Your task to perform on an android device: open the mobile data screen to see how much data has been used Image 0: 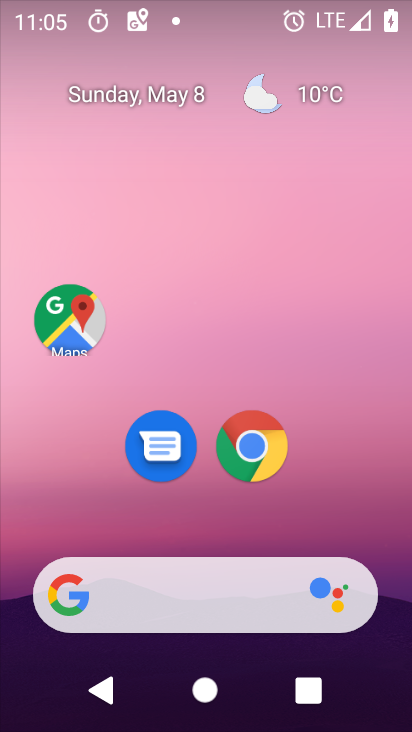
Step 0: drag from (381, 510) to (405, 10)
Your task to perform on an android device: open the mobile data screen to see how much data has been used Image 1: 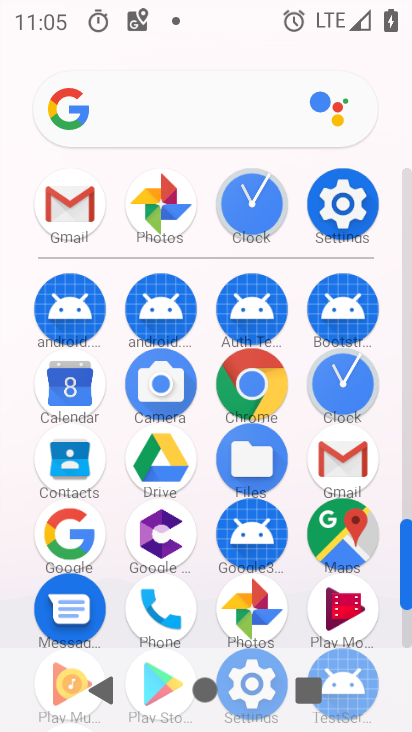
Step 1: click (355, 212)
Your task to perform on an android device: open the mobile data screen to see how much data has been used Image 2: 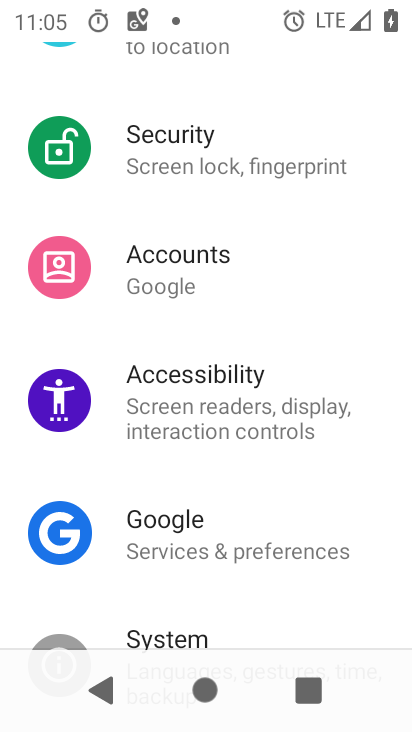
Step 2: drag from (333, 241) to (340, 527)
Your task to perform on an android device: open the mobile data screen to see how much data has been used Image 3: 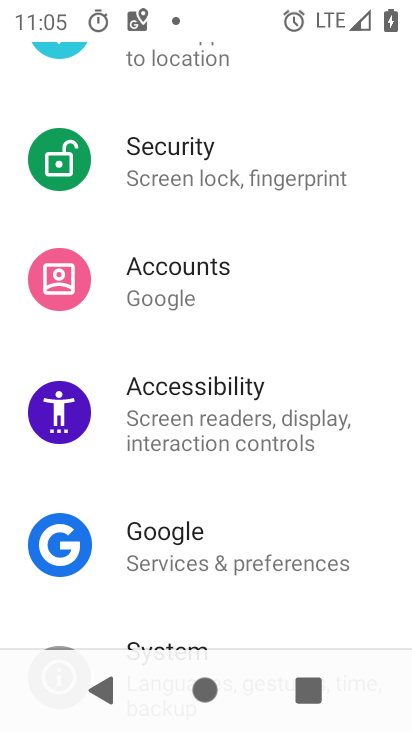
Step 3: drag from (370, 165) to (370, 520)
Your task to perform on an android device: open the mobile data screen to see how much data has been used Image 4: 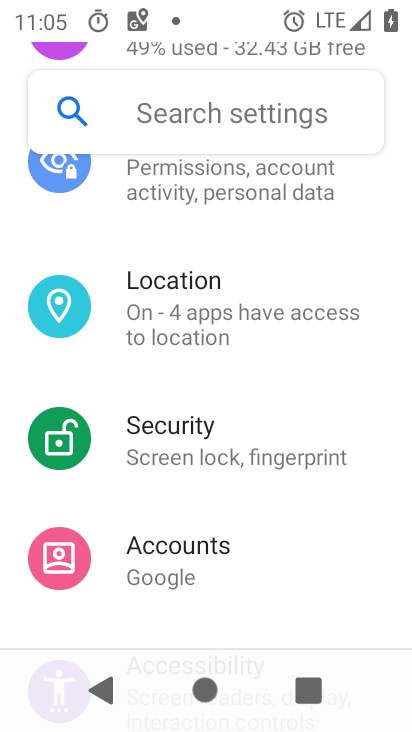
Step 4: drag from (374, 263) to (364, 577)
Your task to perform on an android device: open the mobile data screen to see how much data has been used Image 5: 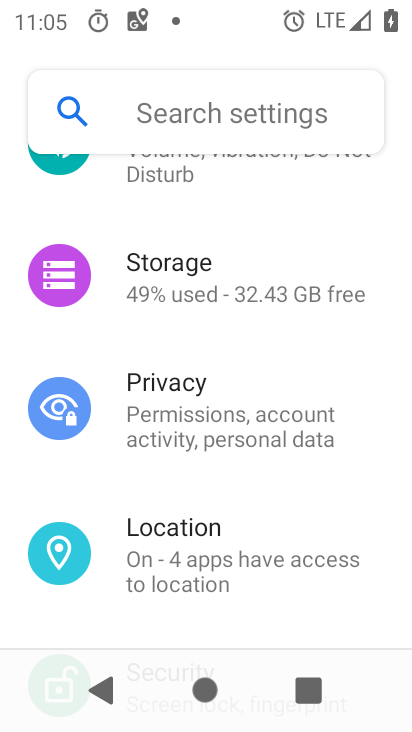
Step 5: drag from (361, 295) to (360, 611)
Your task to perform on an android device: open the mobile data screen to see how much data has been used Image 6: 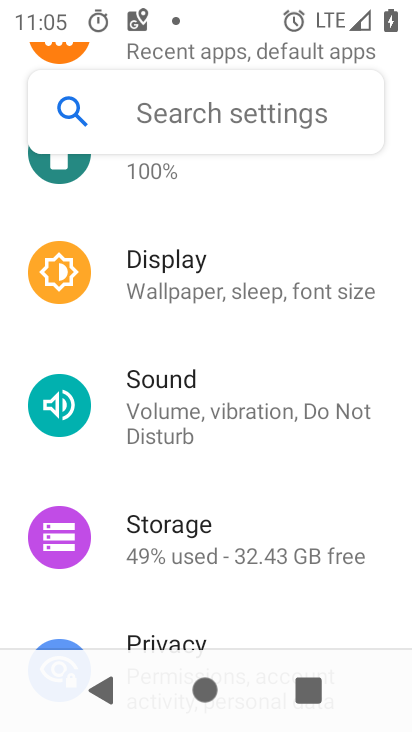
Step 6: drag from (361, 285) to (366, 580)
Your task to perform on an android device: open the mobile data screen to see how much data has been used Image 7: 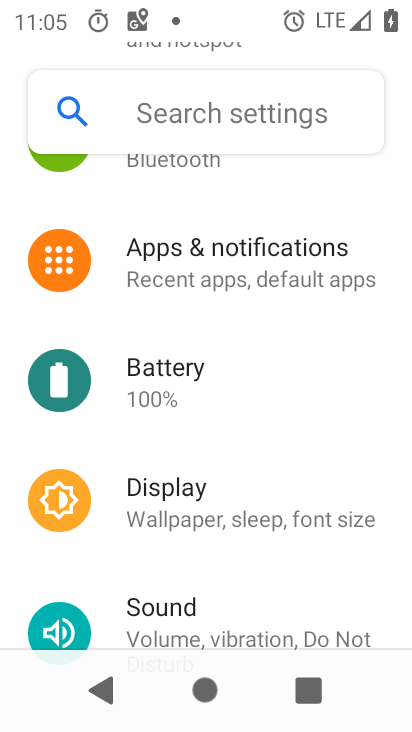
Step 7: drag from (377, 296) to (343, 619)
Your task to perform on an android device: open the mobile data screen to see how much data has been used Image 8: 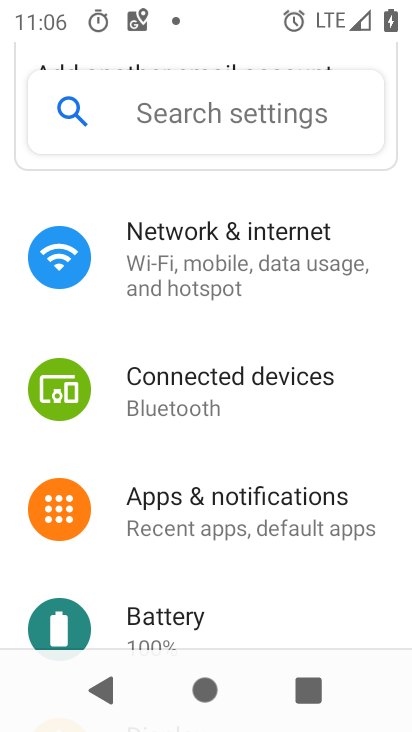
Step 8: click (197, 281)
Your task to perform on an android device: open the mobile data screen to see how much data has been used Image 9: 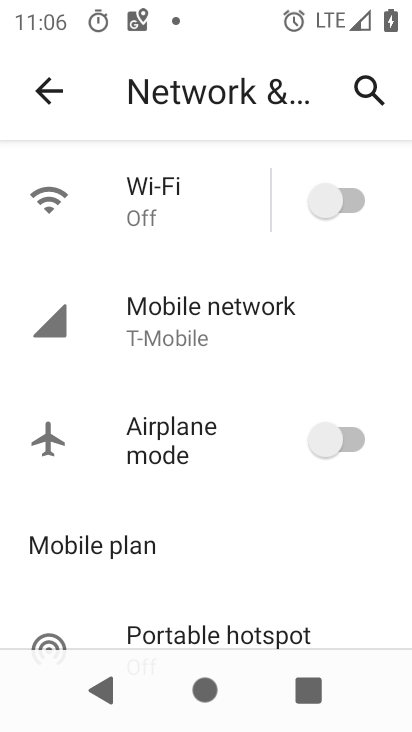
Step 9: click (191, 340)
Your task to perform on an android device: open the mobile data screen to see how much data has been used Image 10: 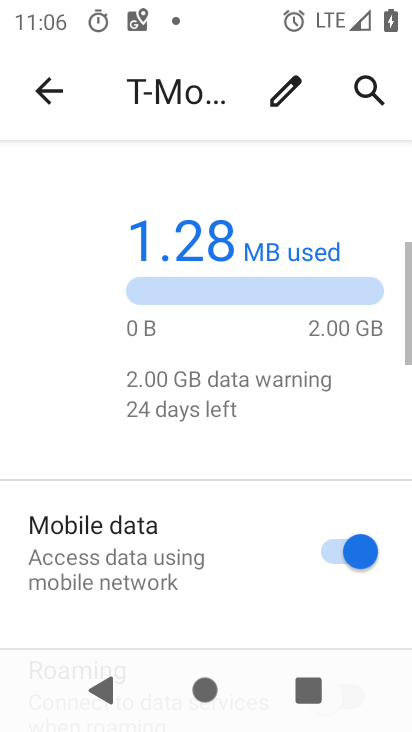
Step 10: drag from (209, 477) to (212, 126)
Your task to perform on an android device: open the mobile data screen to see how much data has been used Image 11: 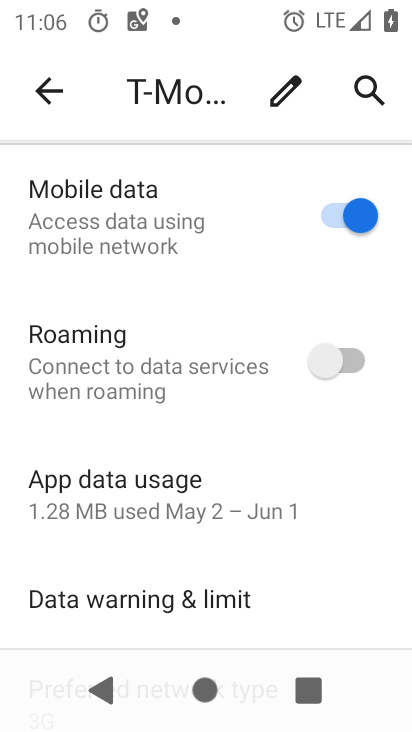
Step 11: click (100, 500)
Your task to perform on an android device: open the mobile data screen to see how much data has been used Image 12: 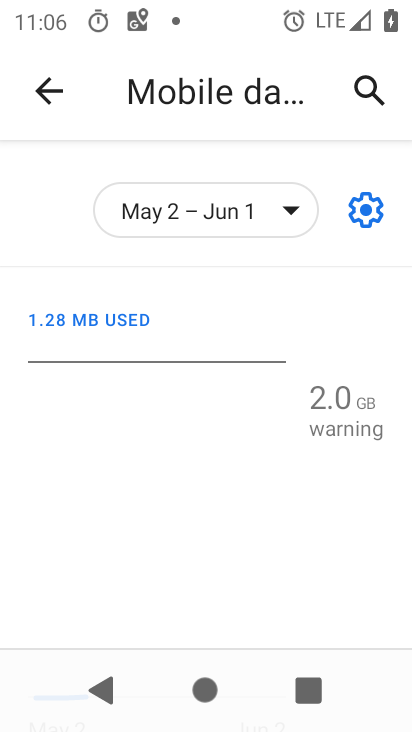
Step 12: task complete